Your task to perform on an android device: Show me the alarms in the clock app Image 0: 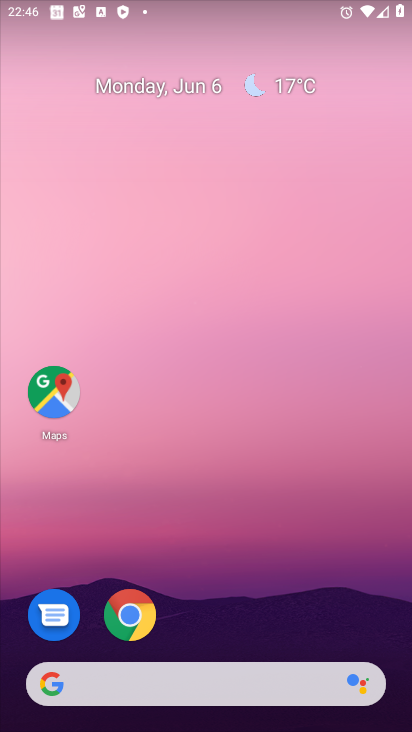
Step 0: drag from (404, 710) to (370, 96)
Your task to perform on an android device: Show me the alarms in the clock app Image 1: 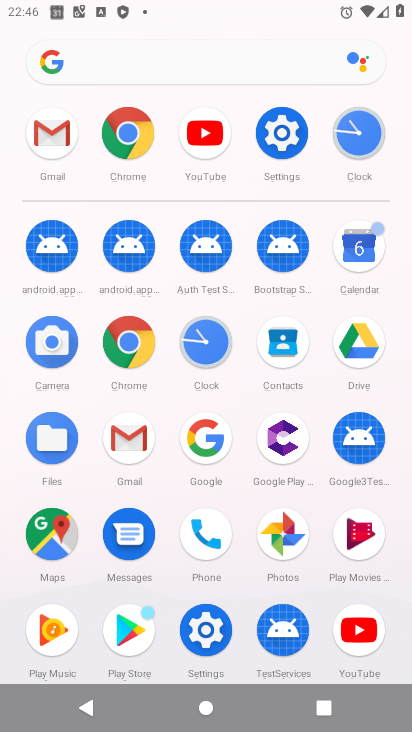
Step 1: click (219, 334)
Your task to perform on an android device: Show me the alarms in the clock app Image 2: 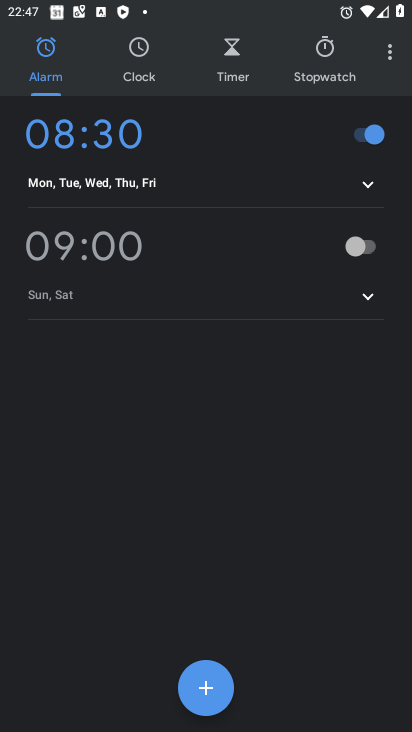
Step 2: task complete